Your task to perform on an android device: Do I have any events tomorrow? Image 0: 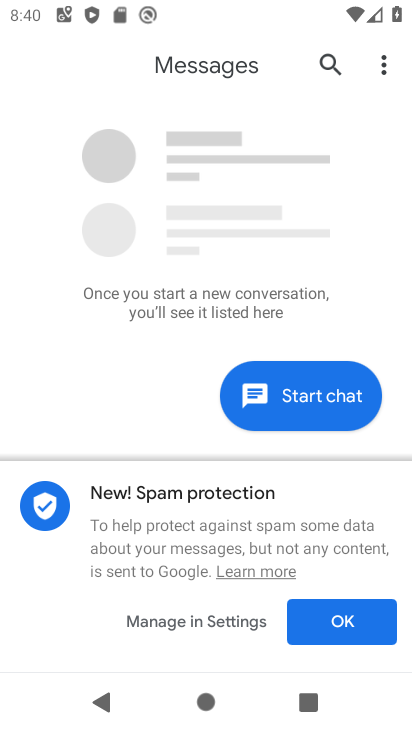
Step 0: press home button
Your task to perform on an android device: Do I have any events tomorrow? Image 1: 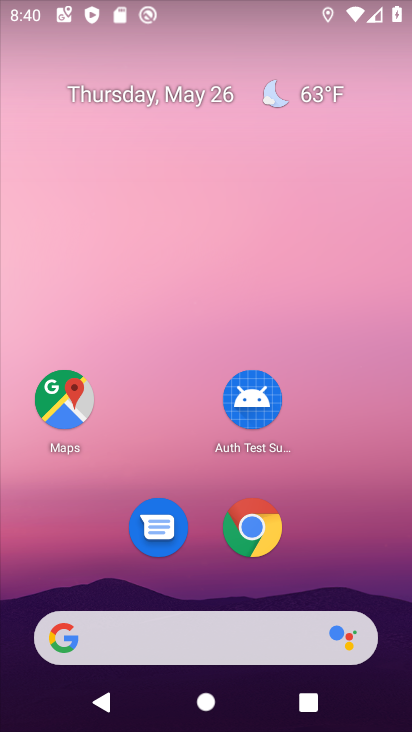
Step 1: drag from (354, 500) to (384, 117)
Your task to perform on an android device: Do I have any events tomorrow? Image 2: 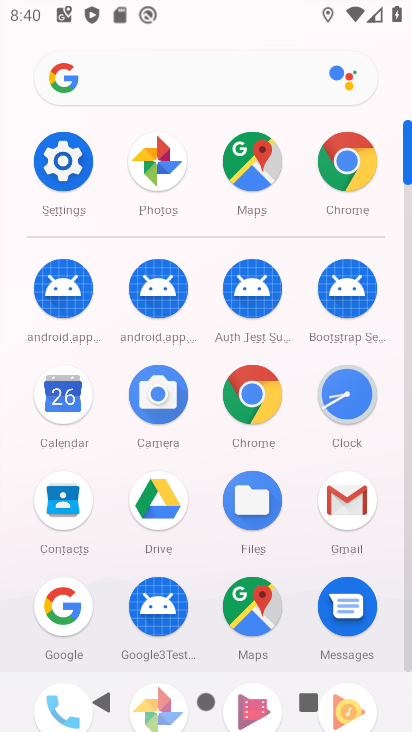
Step 2: click (70, 407)
Your task to perform on an android device: Do I have any events tomorrow? Image 3: 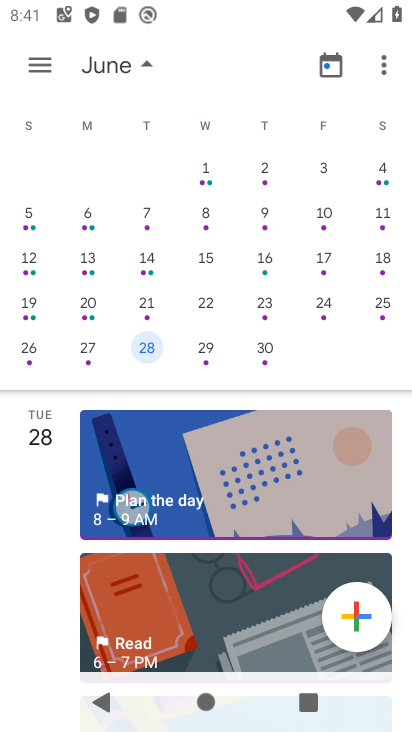
Step 3: click (208, 359)
Your task to perform on an android device: Do I have any events tomorrow? Image 4: 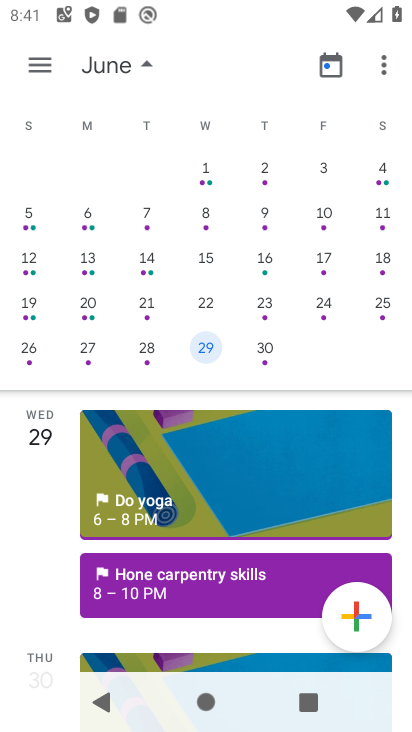
Step 4: task complete